Your task to perform on an android device: delete browsing data in the chrome app Image 0: 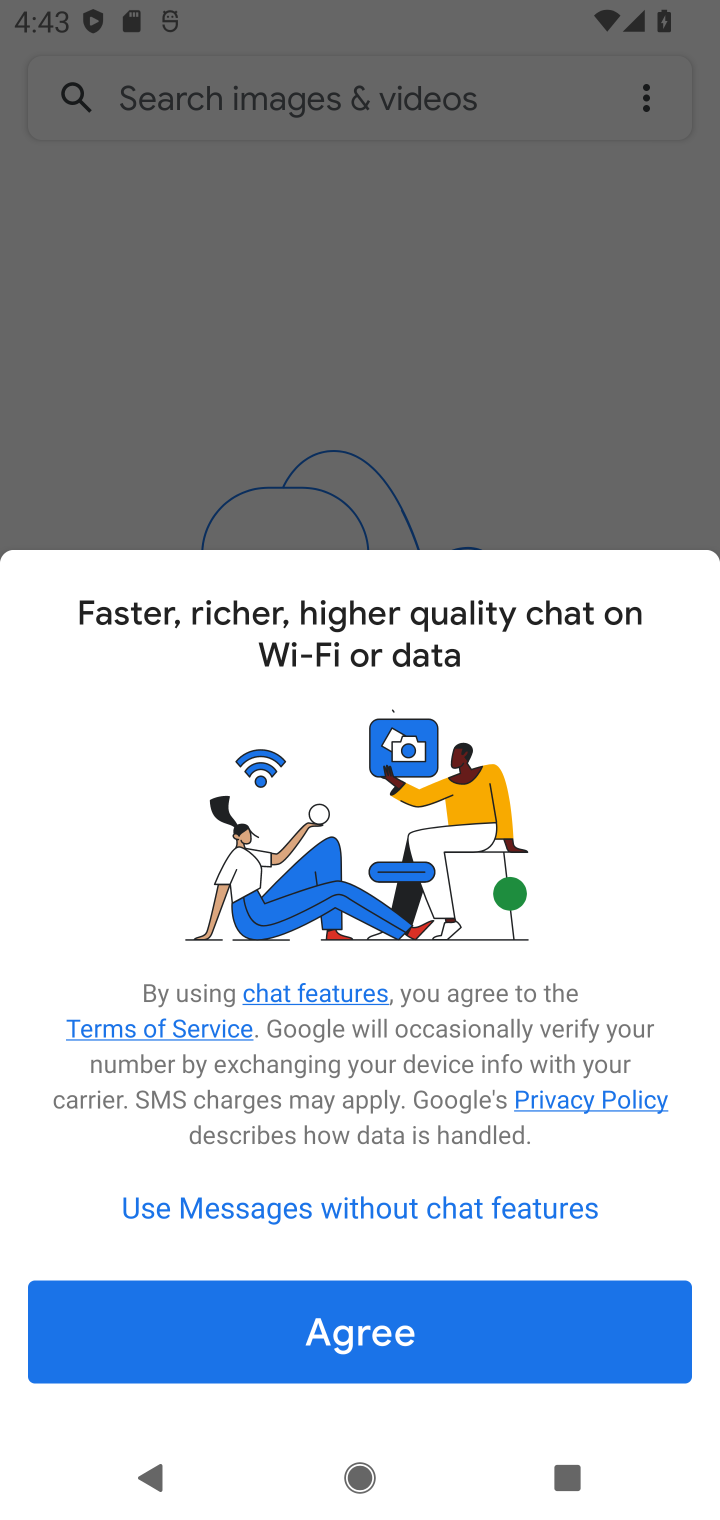
Step 0: press home button
Your task to perform on an android device: delete browsing data in the chrome app Image 1: 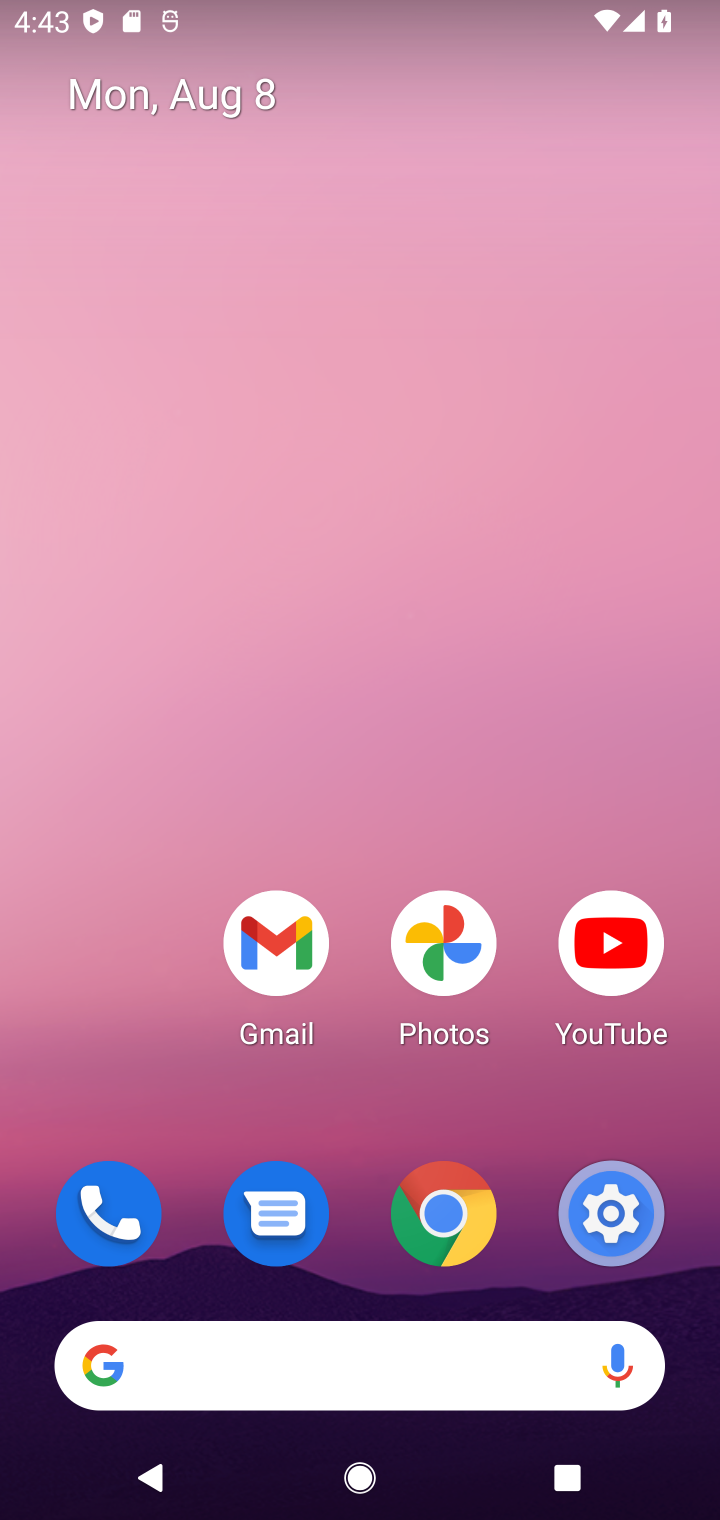
Step 1: click (456, 1202)
Your task to perform on an android device: delete browsing data in the chrome app Image 2: 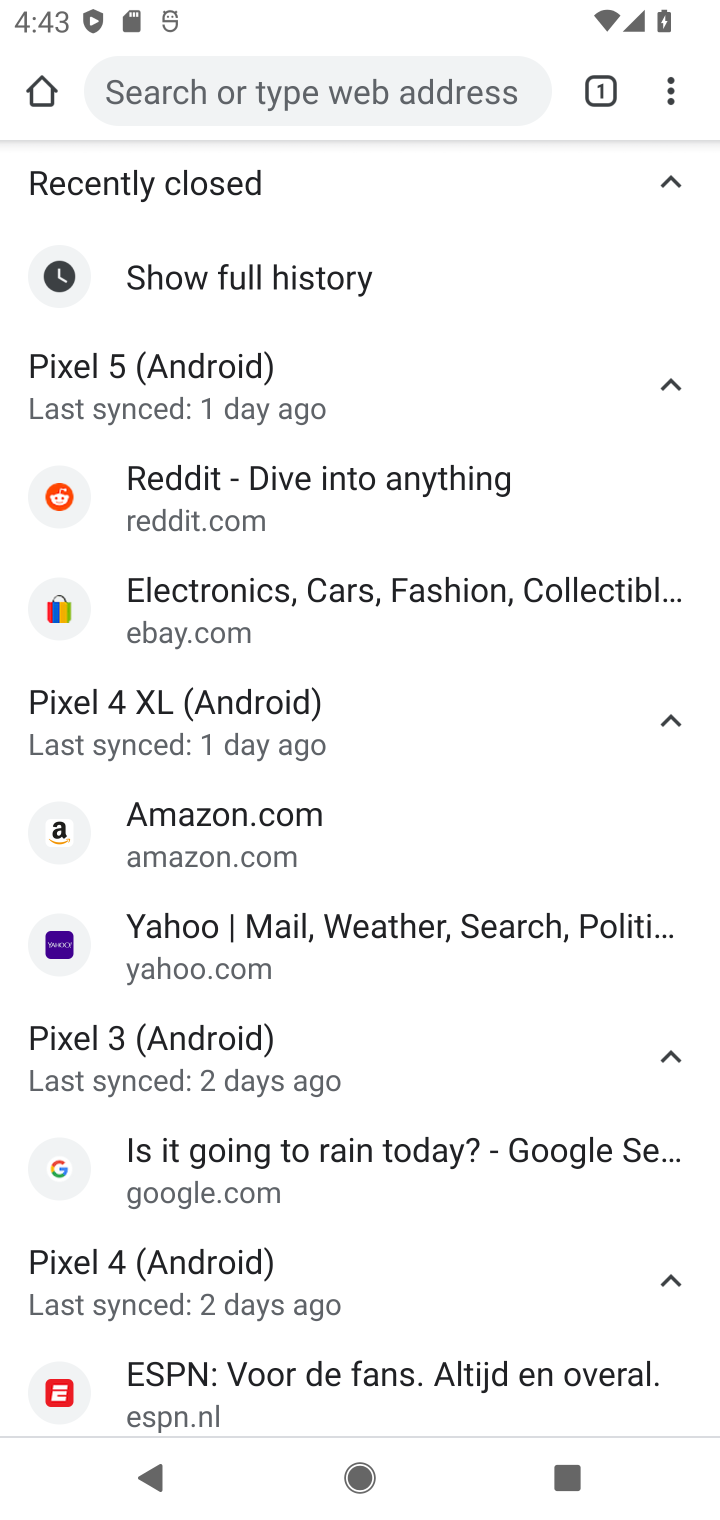
Step 2: click (671, 97)
Your task to perform on an android device: delete browsing data in the chrome app Image 3: 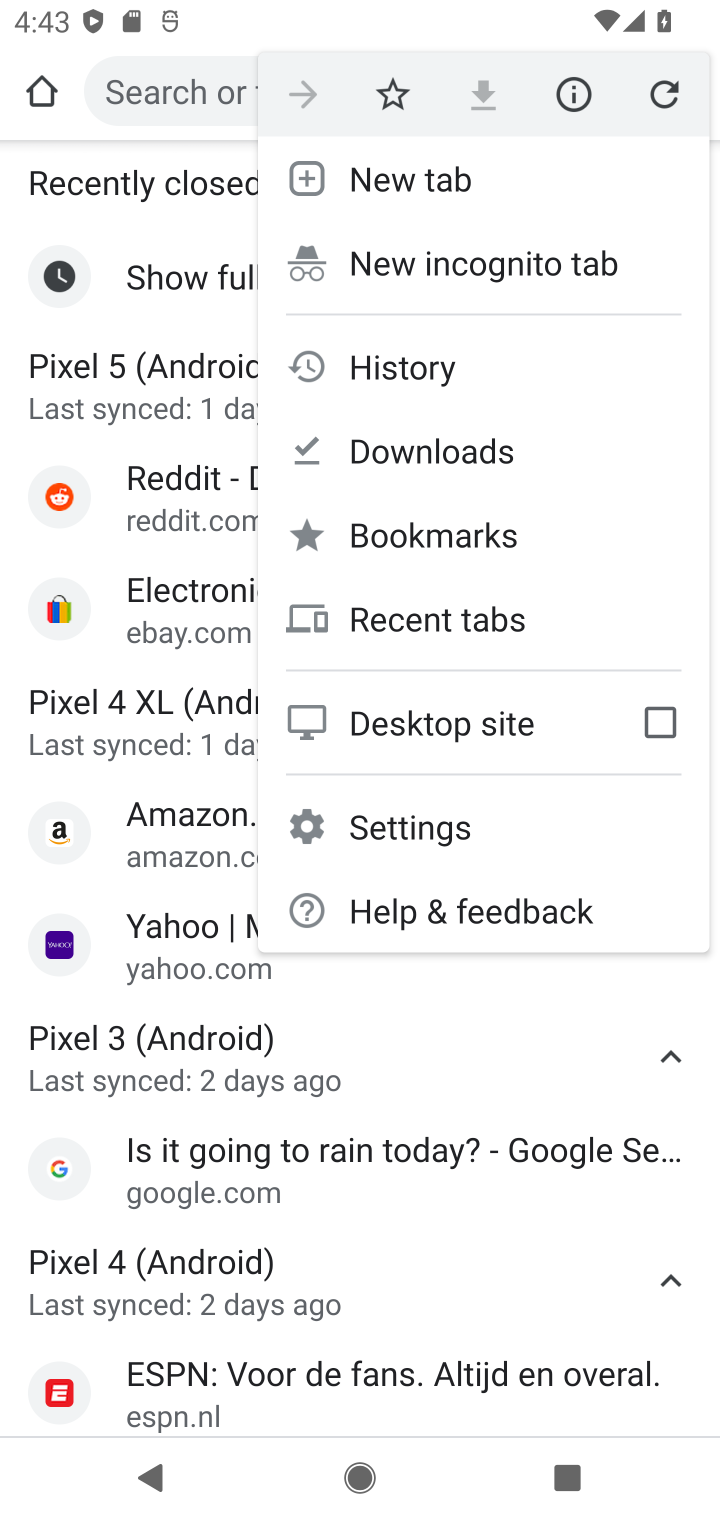
Step 3: click (434, 375)
Your task to perform on an android device: delete browsing data in the chrome app Image 4: 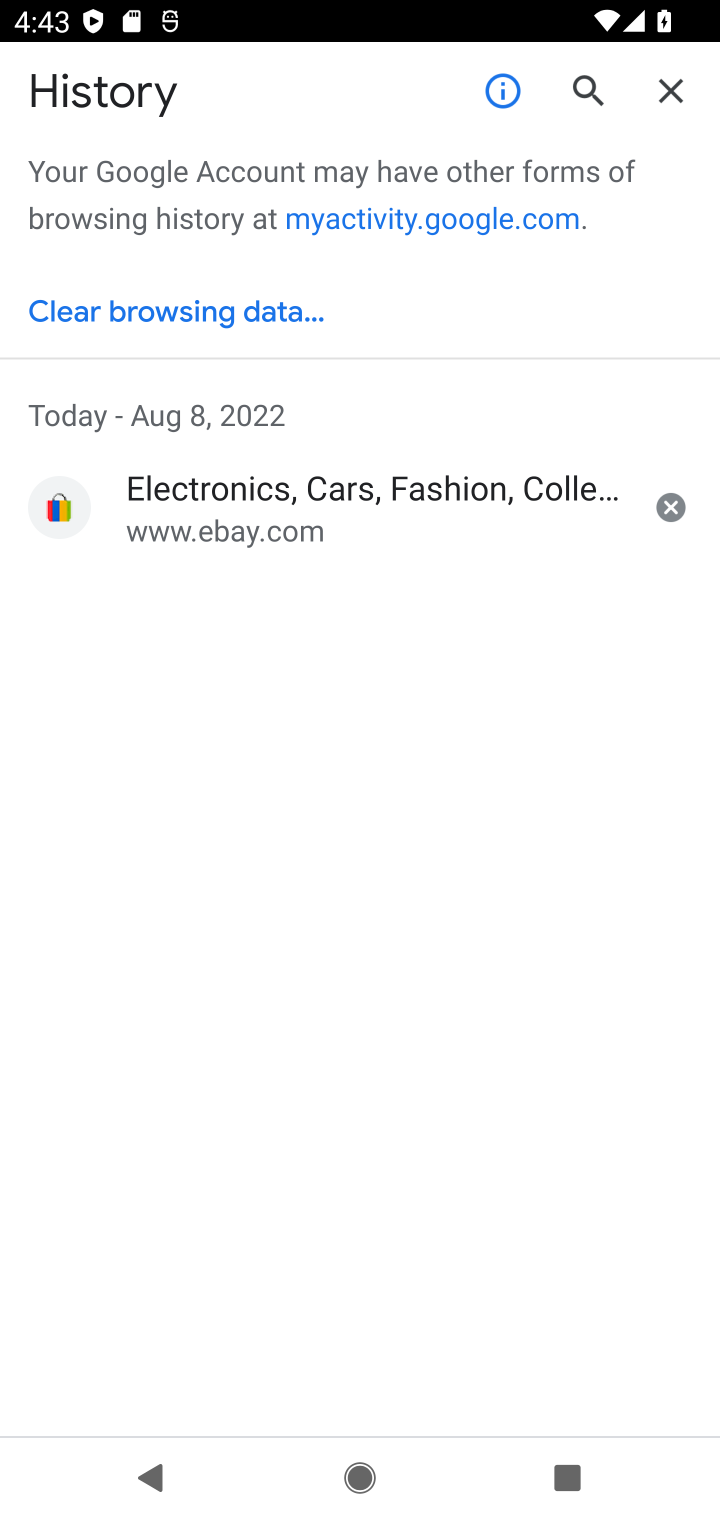
Step 4: click (223, 325)
Your task to perform on an android device: delete browsing data in the chrome app Image 5: 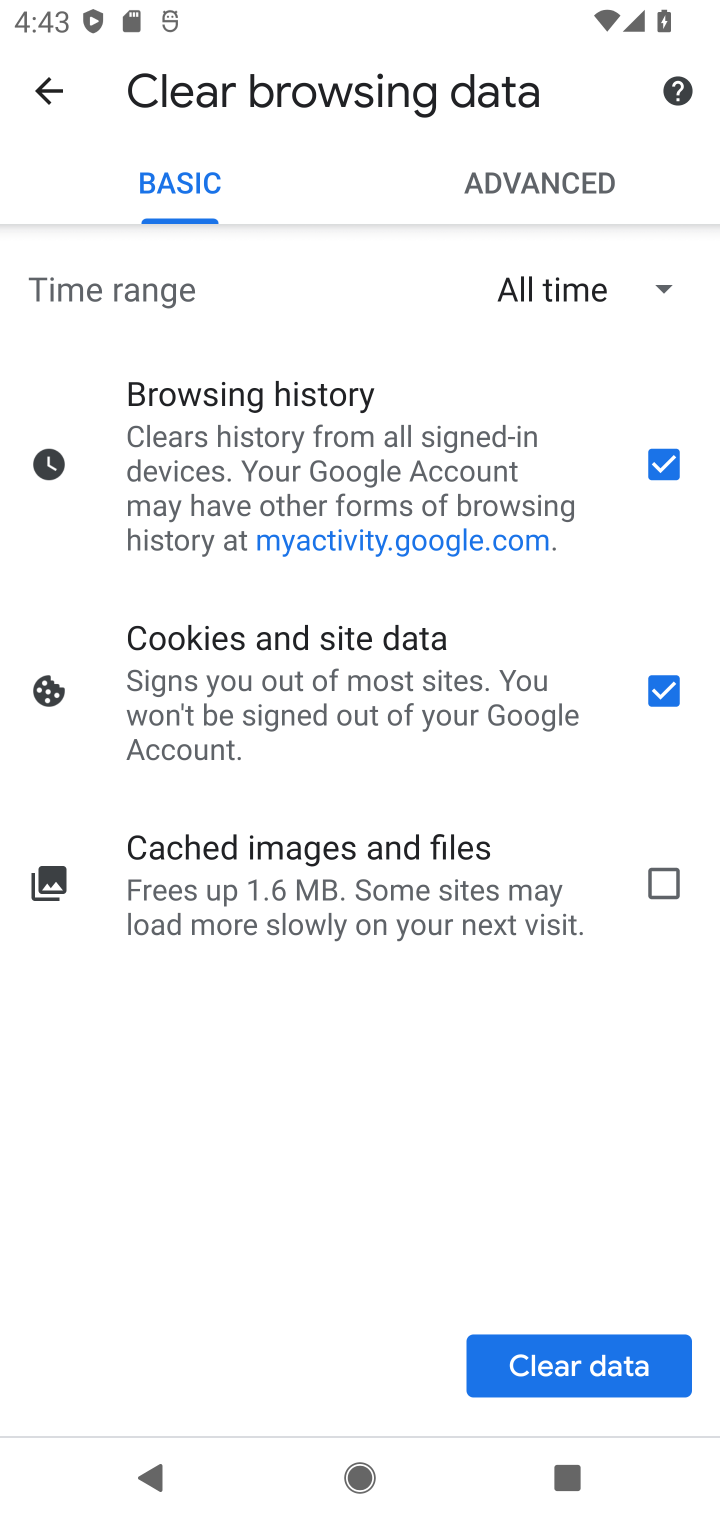
Step 5: click (646, 853)
Your task to perform on an android device: delete browsing data in the chrome app Image 6: 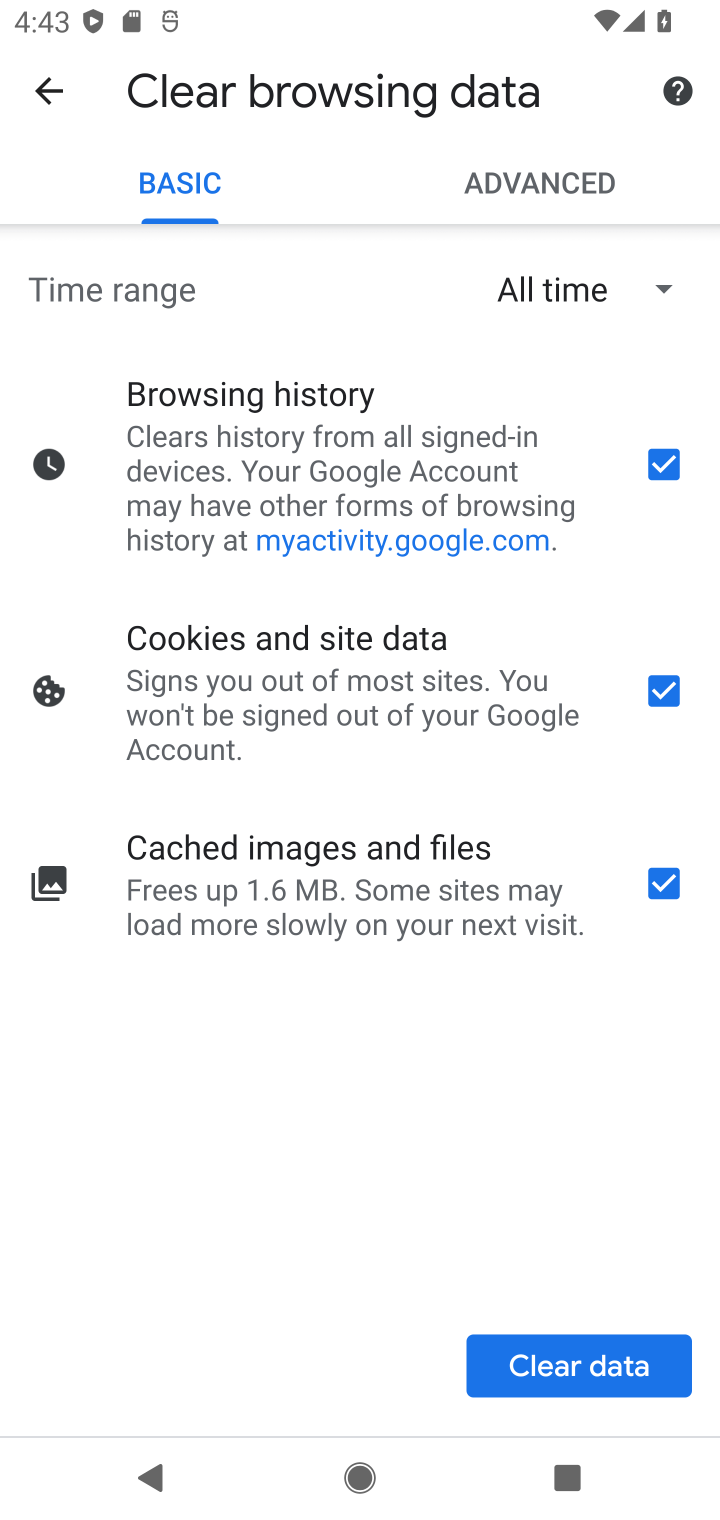
Step 6: click (569, 1390)
Your task to perform on an android device: delete browsing data in the chrome app Image 7: 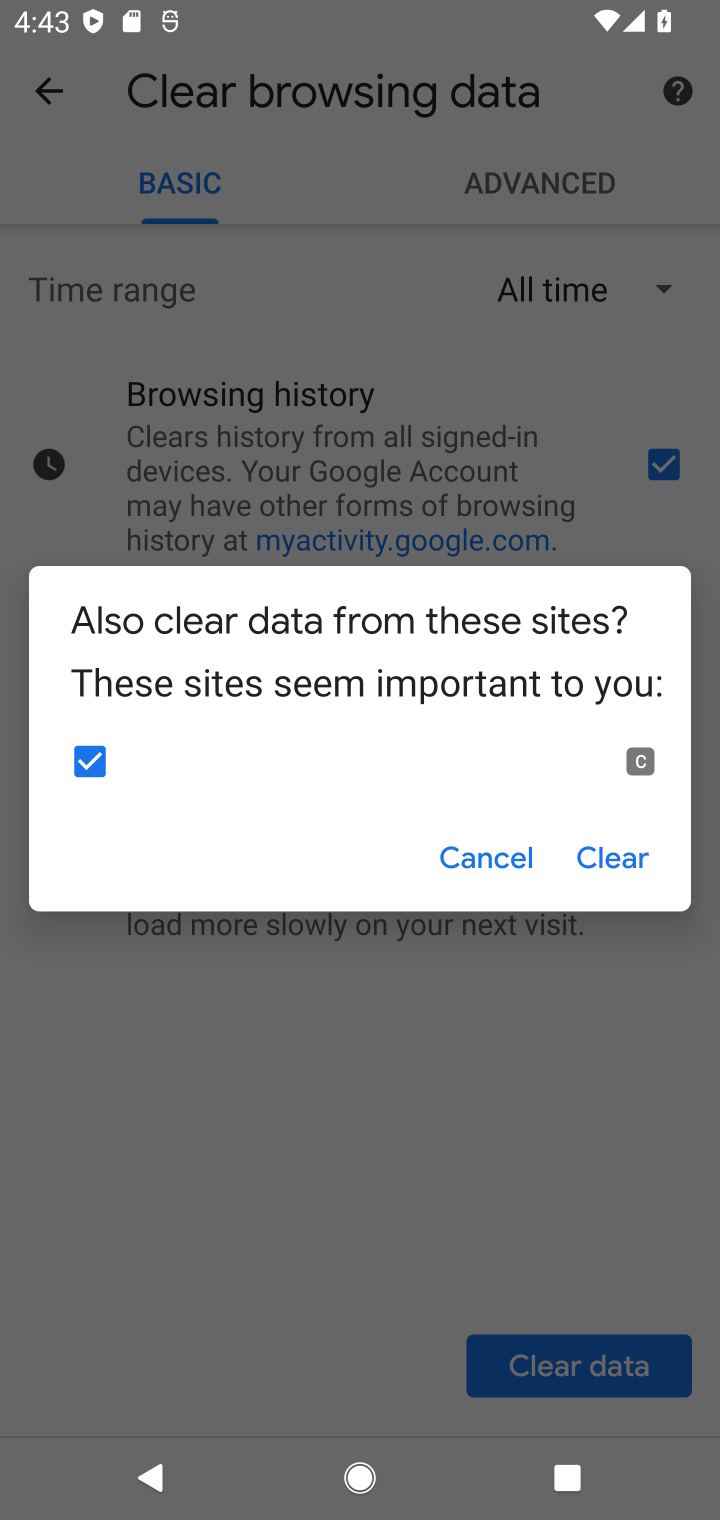
Step 7: click (620, 860)
Your task to perform on an android device: delete browsing data in the chrome app Image 8: 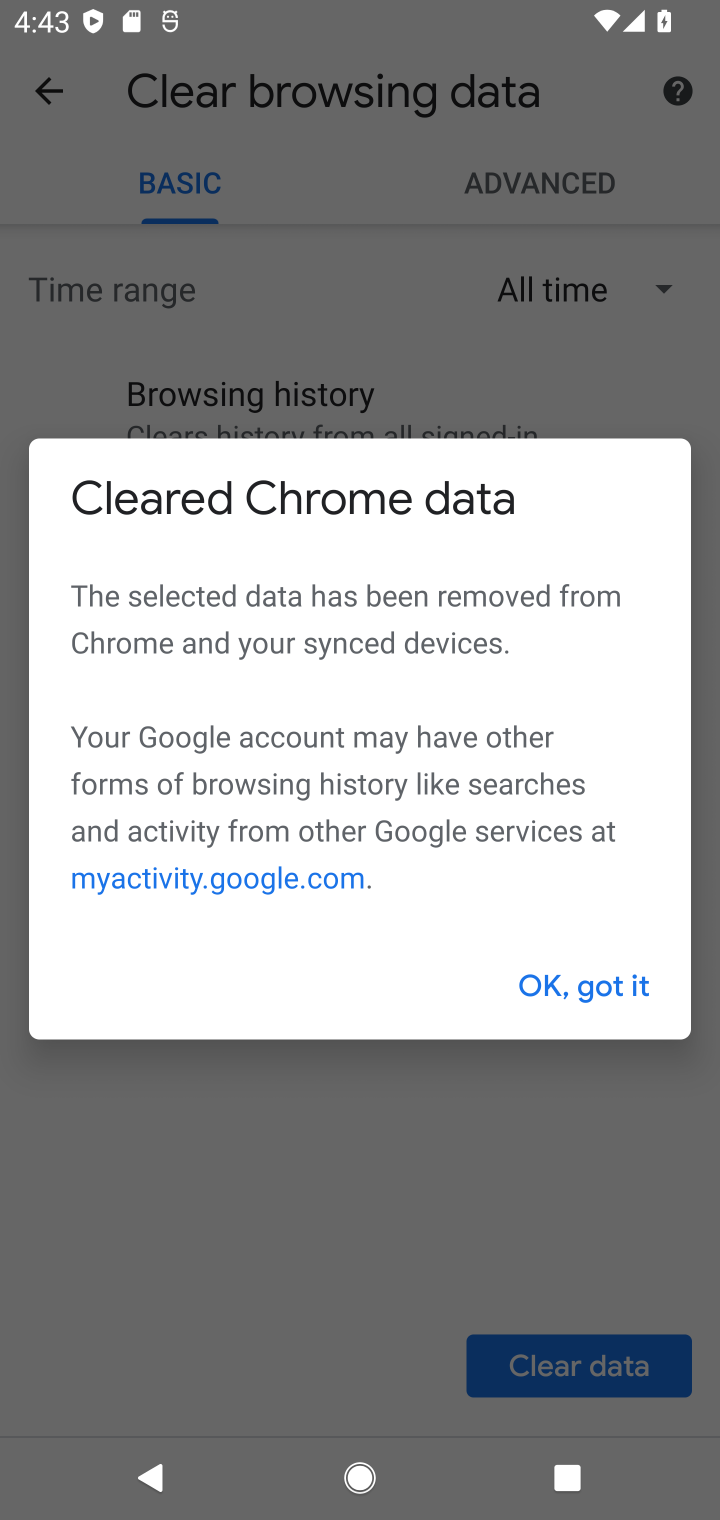
Step 8: click (625, 968)
Your task to perform on an android device: delete browsing data in the chrome app Image 9: 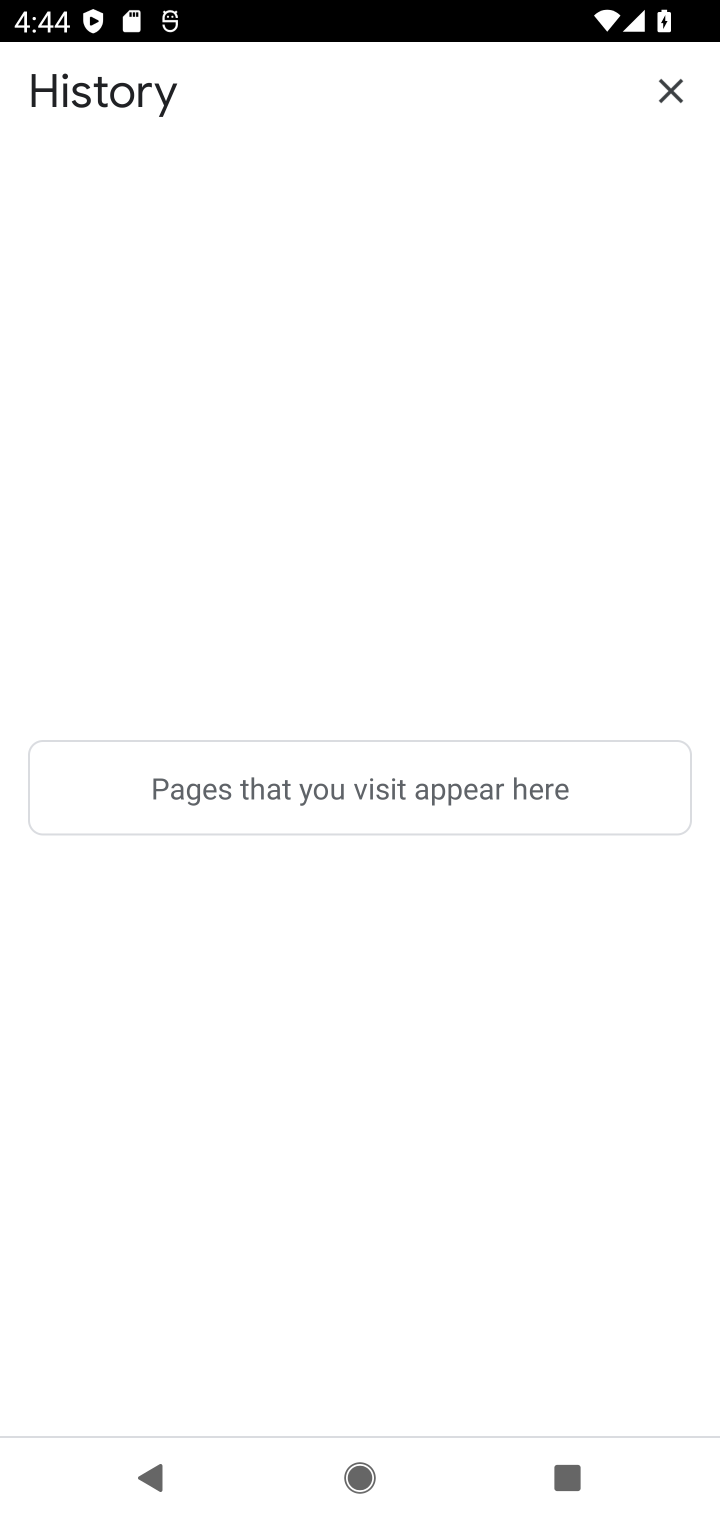
Step 9: task complete